Your task to perform on an android device: uninstall "Grab" Image 0: 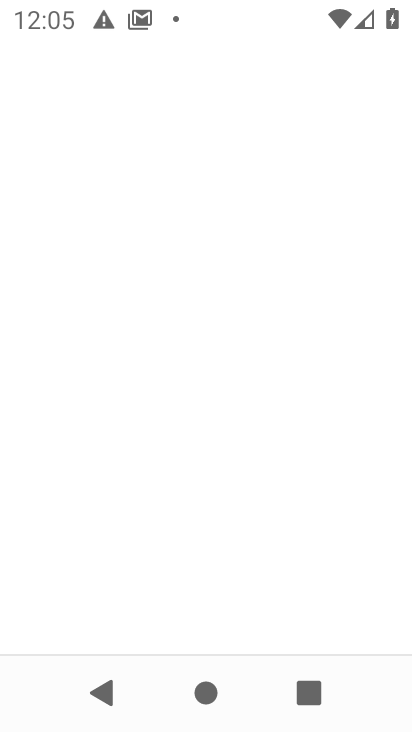
Step 0: click (266, 7)
Your task to perform on an android device: uninstall "Grab" Image 1: 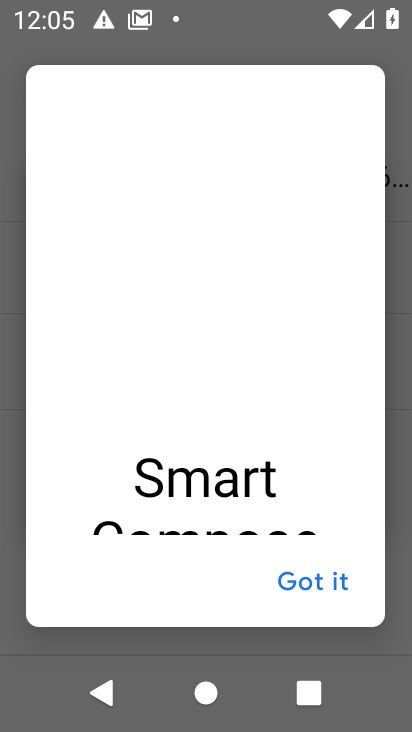
Step 1: press home button
Your task to perform on an android device: uninstall "Grab" Image 2: 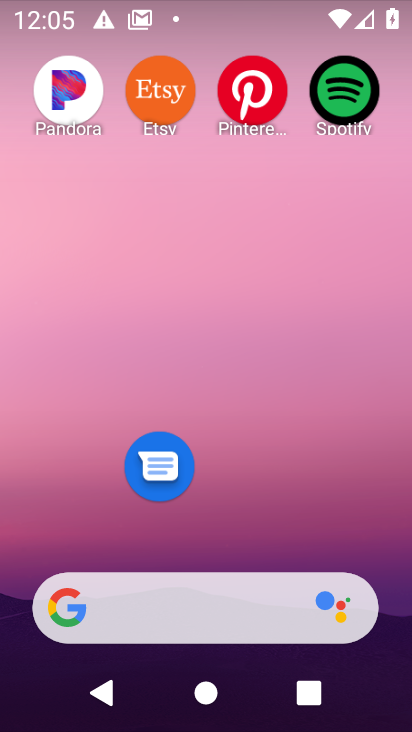
Step 2: drag from (182, 487) to (182, 24)
Your task to perform on an android device: uninstall "Grab" Image 3: 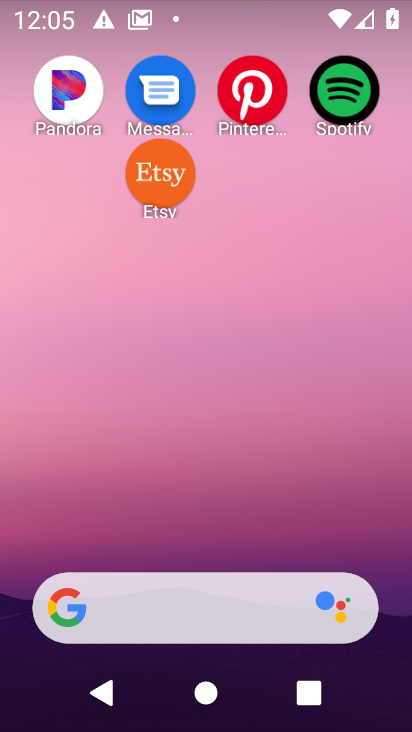
Step 3: drag from (179, 524) to (175, 47)
Your task to perform on an android device: uninstall "Grab" Image 4: 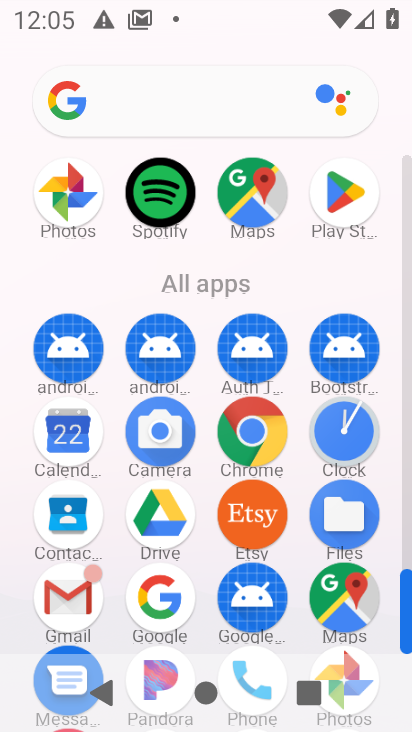
Step 4: click (343, 201)
Your task to perform on an android device: uninstall "Grab" Image 5: 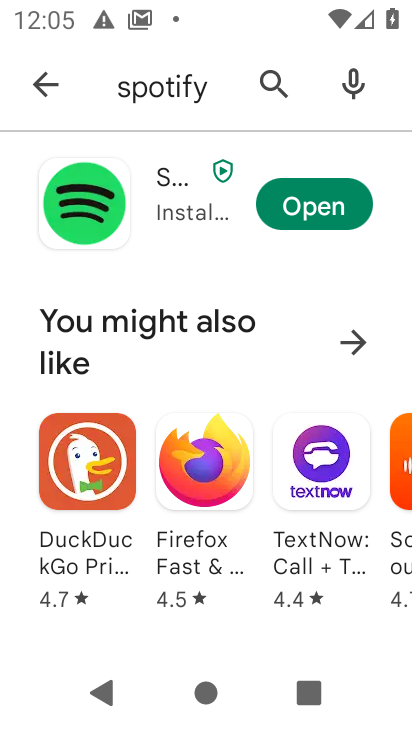
Step 5: click (31, 89)
Your task to perform on an android device: uninstall "Grab" Image 6: 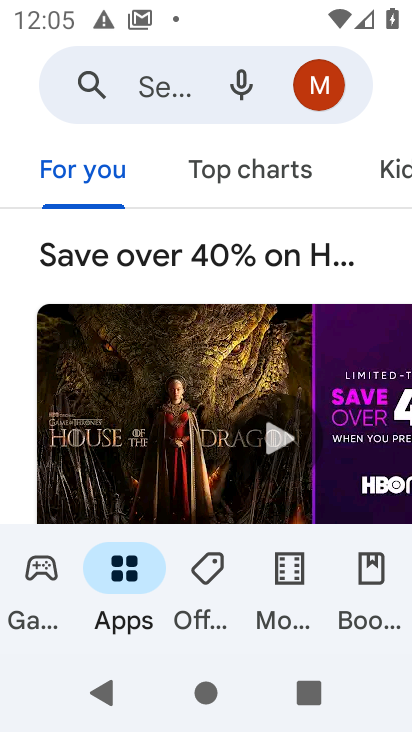
Step 6: click (160, 89)
Your task to perform on an android device: uninstall "Grab" Image 7: 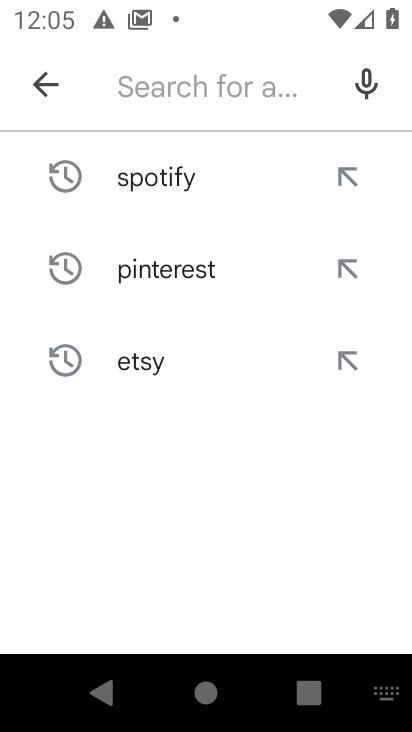
Step 7: type "Grab"
Your task to perform on an android device: uninstall "Grab" Image 8: 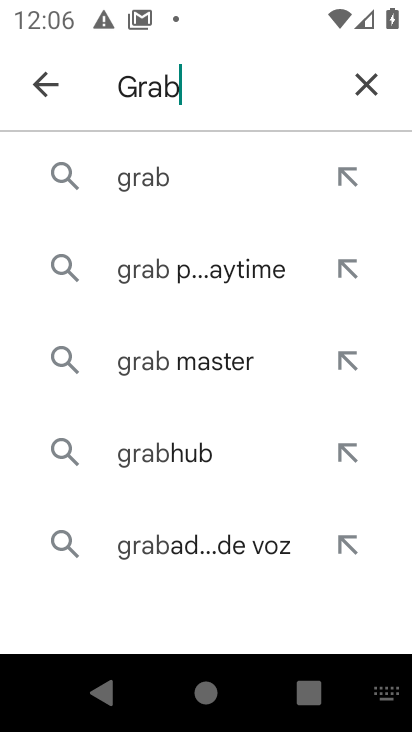
Step 8: click (144, 178)
Your task to perform on an android device: uninstall "Grab" Image 9: 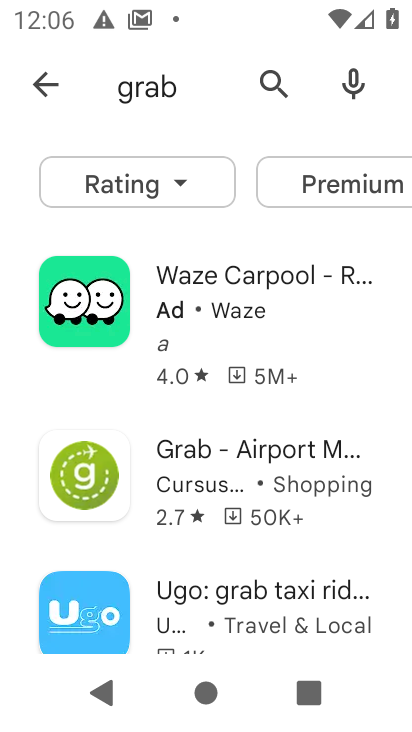
Step 9: click (197, 468)
Your task to perform on an android device: uninstall "Grab" Image 10: 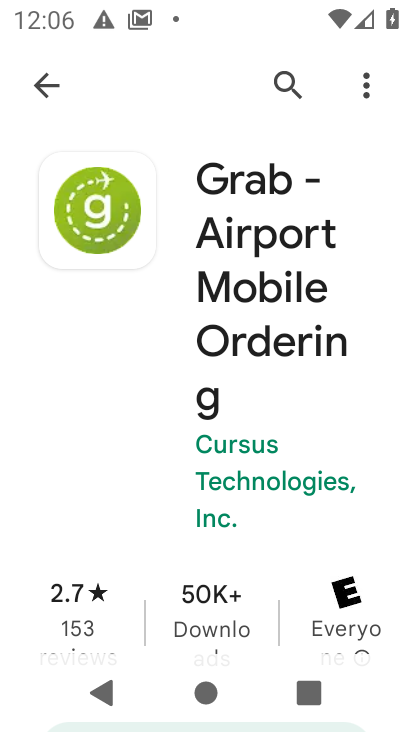
Step 10: task complete